Your task to perform on an android device: toggle pop-ups in chrome Image 0: 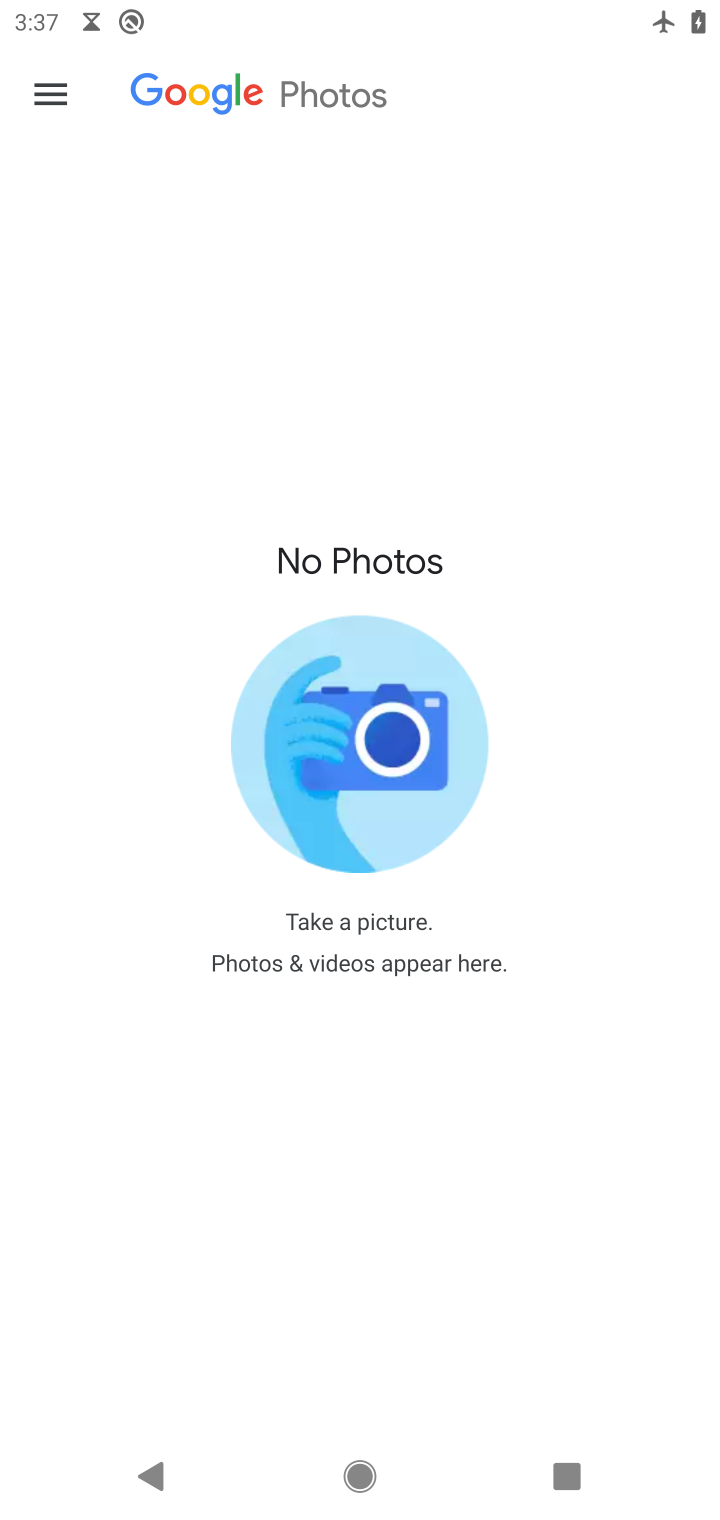
Step 0: press home button
Your task to perform on an android device: toggle pop-ups in chrome Image 1: 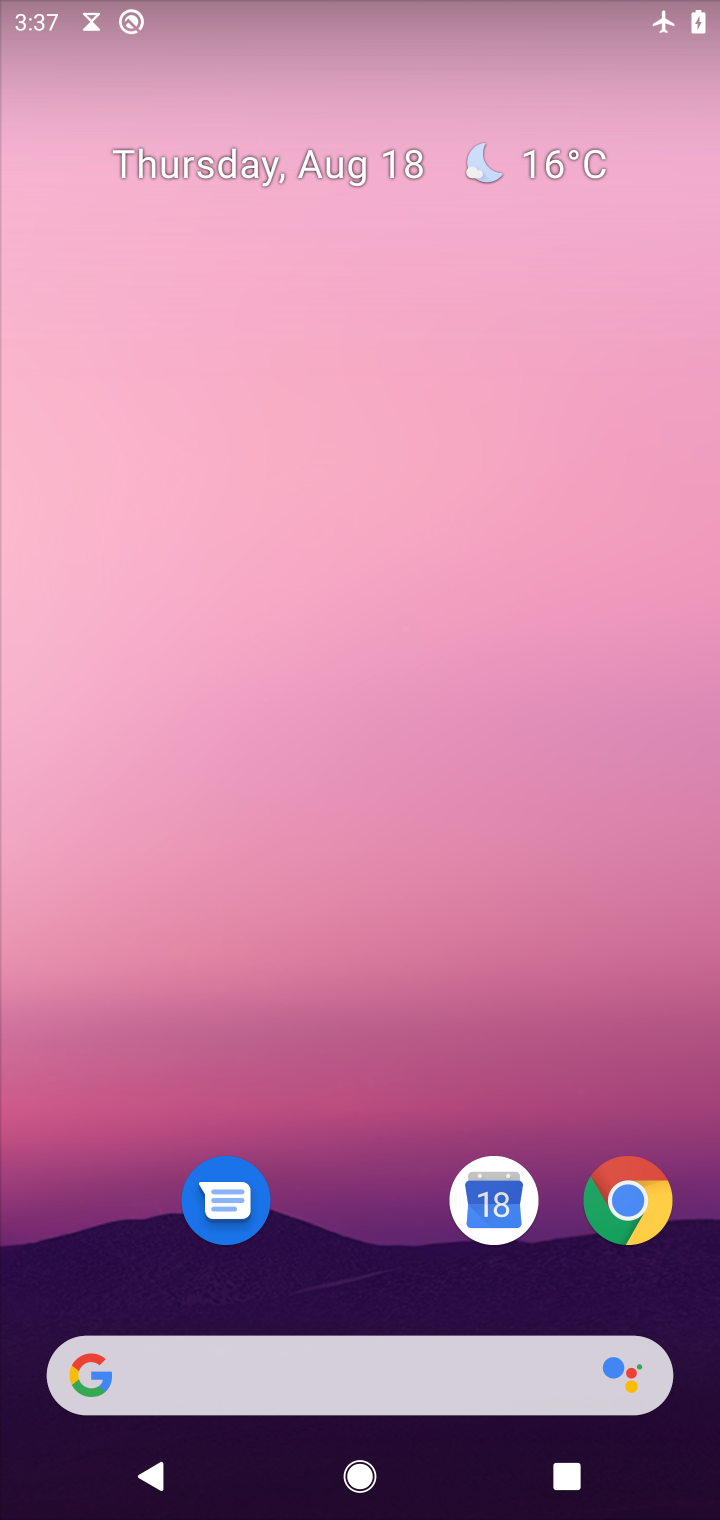
Step 1: drag from (358, 1073) to (420, 61)
Your task to perform on an android device: toggle pop-ups in chrome Image 2: 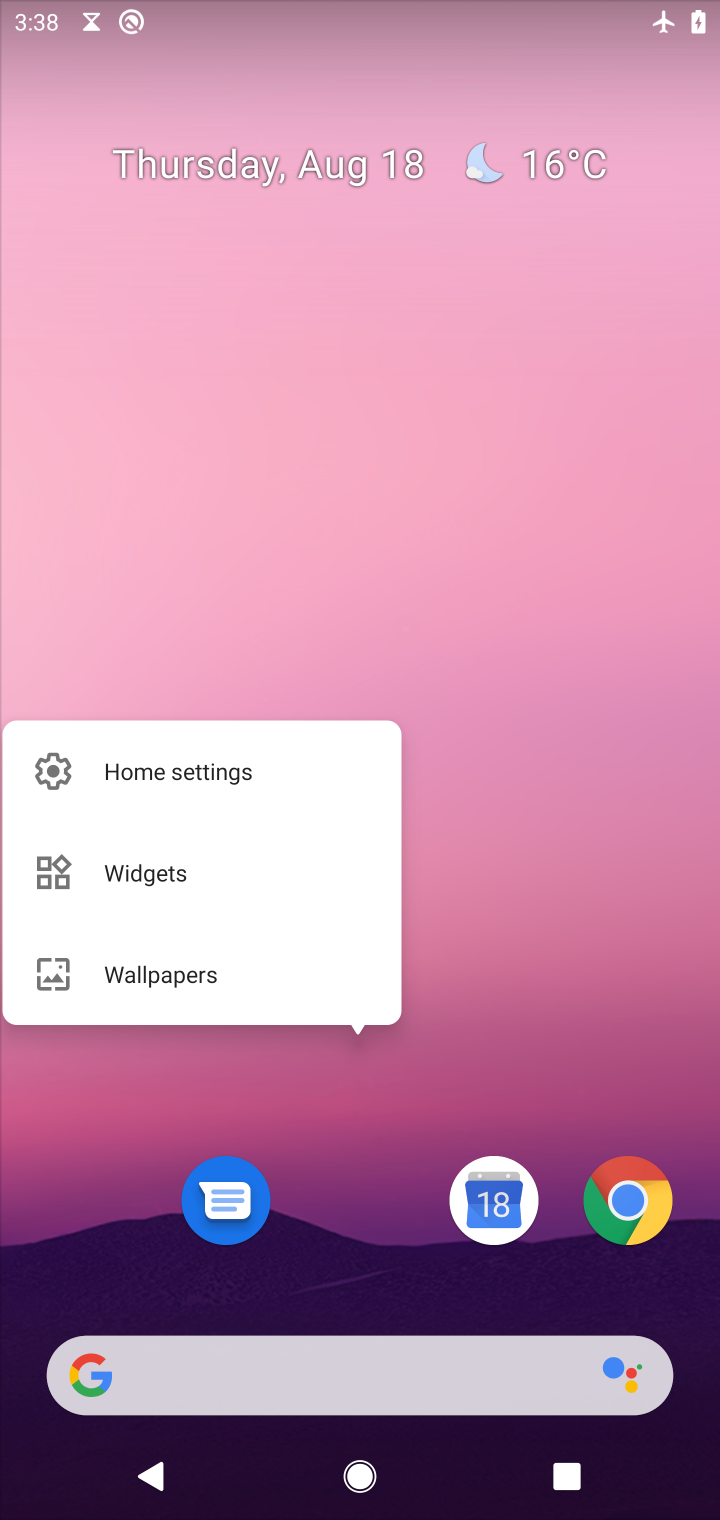
Step 2: click (375, 497)
Your task to perform on an android device: toggle pop-ups in chrome Image 3: 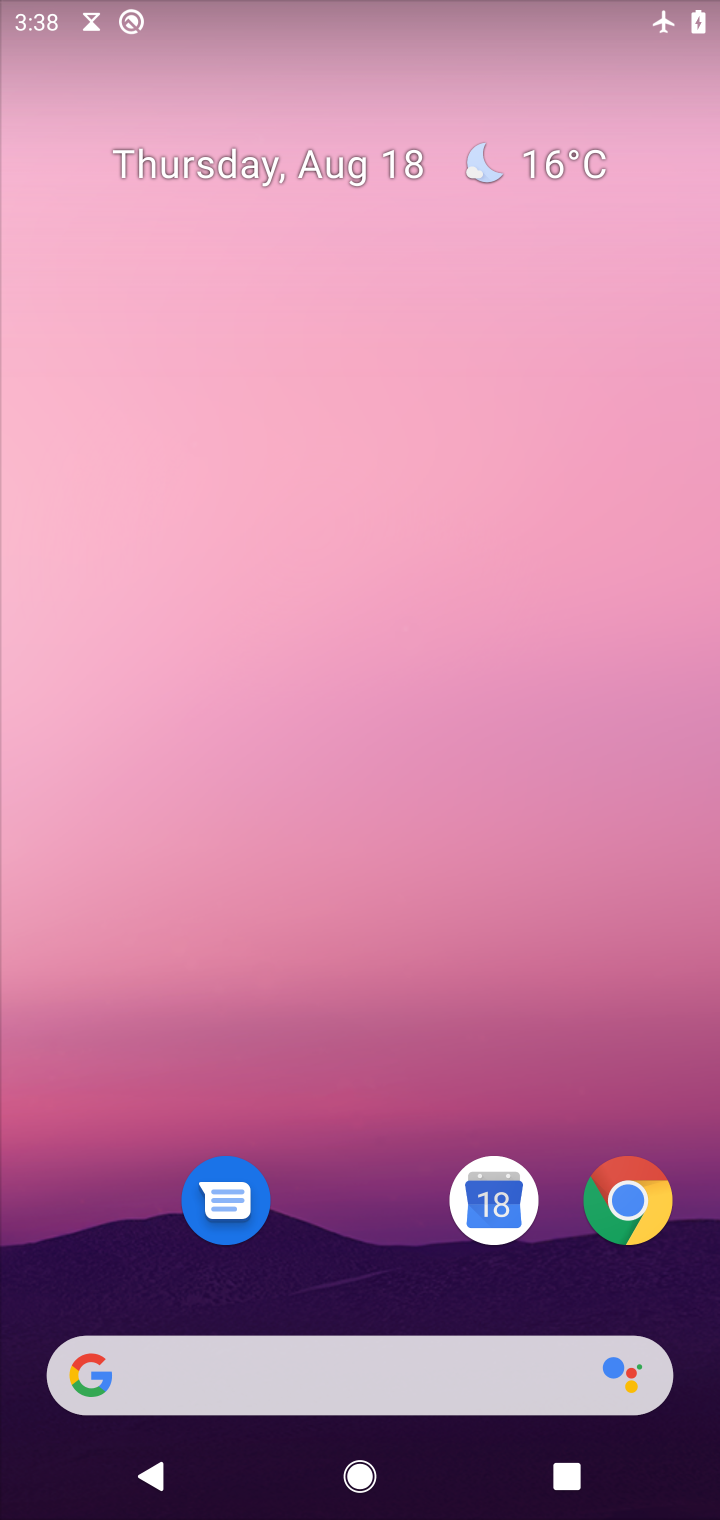
Step 3: drag from (355, 1202) to (281, 104)
Your task to perform on an android device: toggle pop-ups in chrome Image 4: 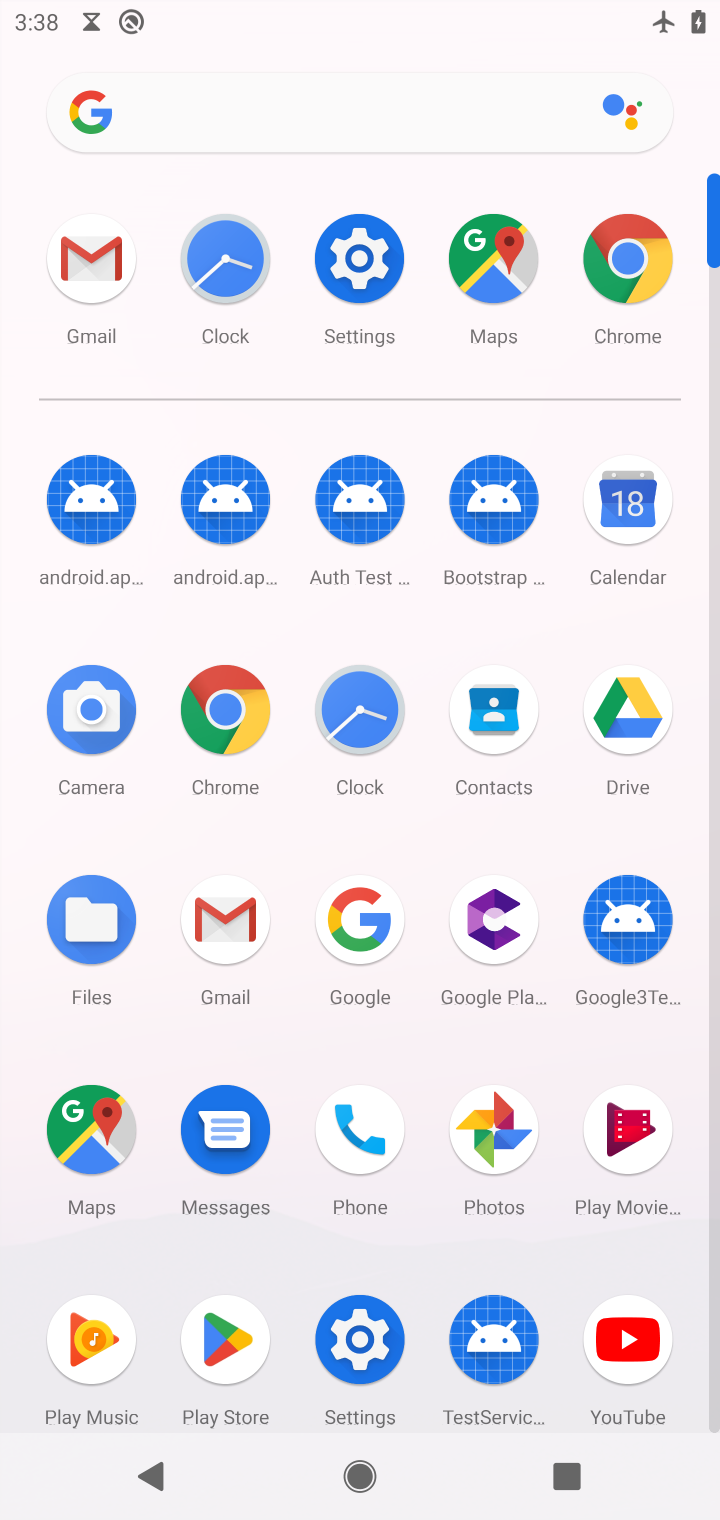
Step 4: click (211, 712)
Your task to perform on an android device: toggle pop-ups in chrome Image 5: 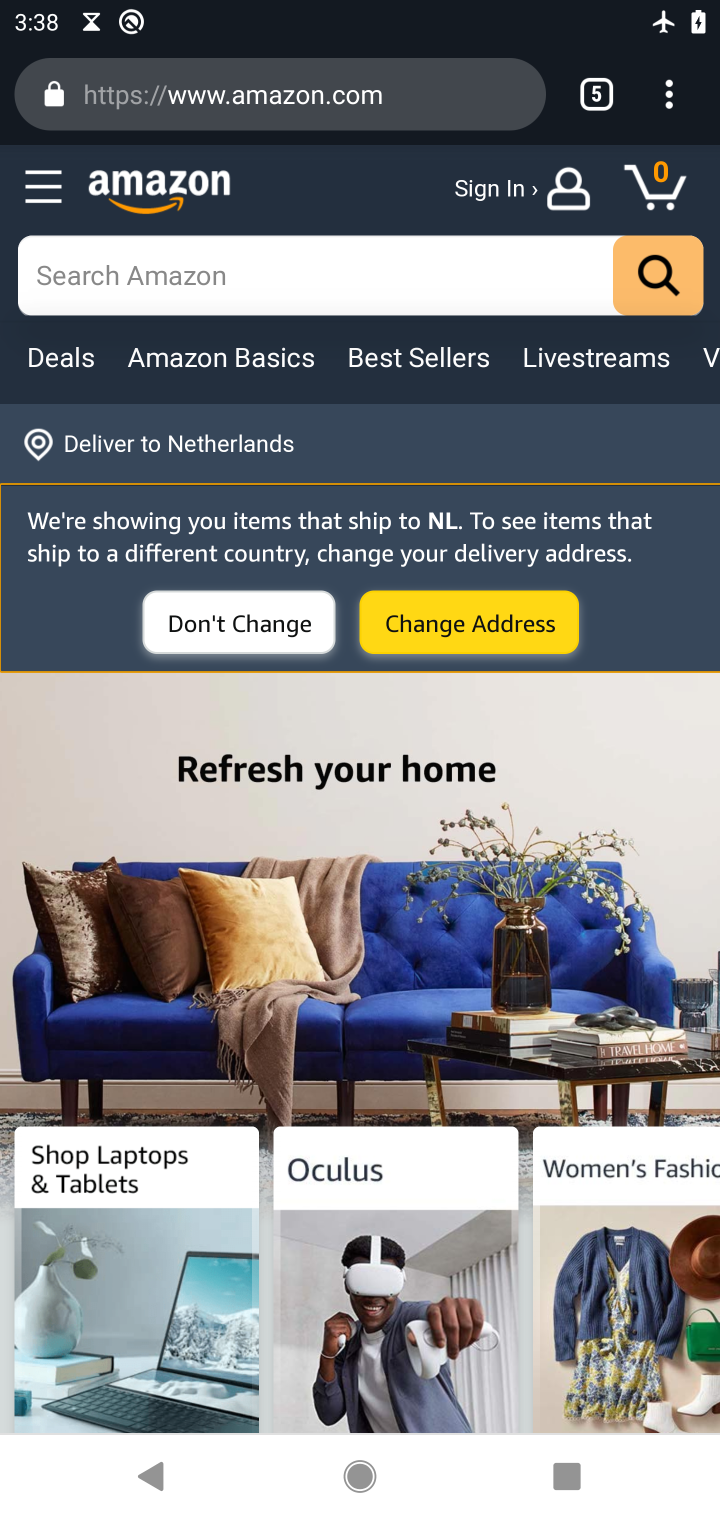
Step 5: drag from (649, 98) to (426, 1035)
Your task to perform on an android device: toggle pop-ups in chrome Image 6: 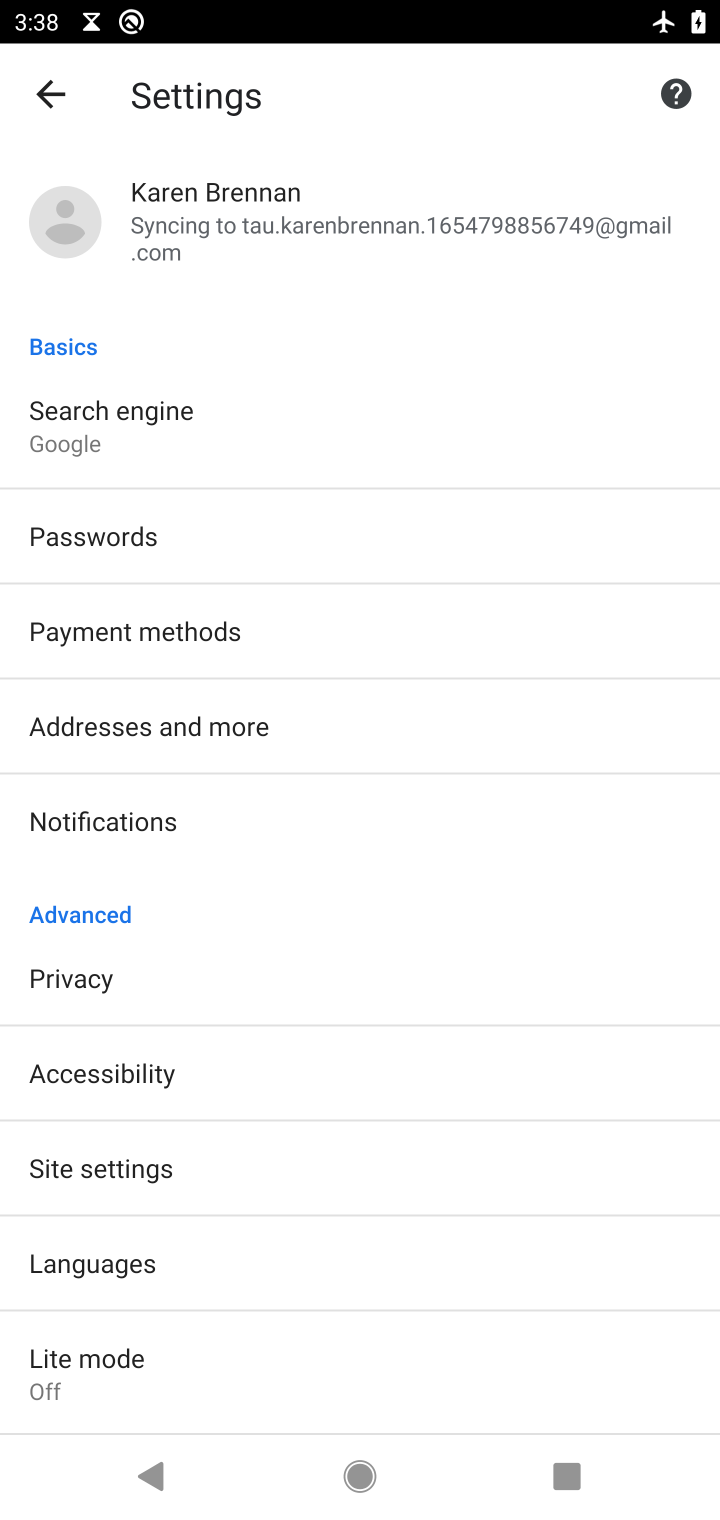
Step 6: drag from (174, 1299) to (124, 724)
Your task to perform on an android device: toggle pop-ups in chrome Image 7: 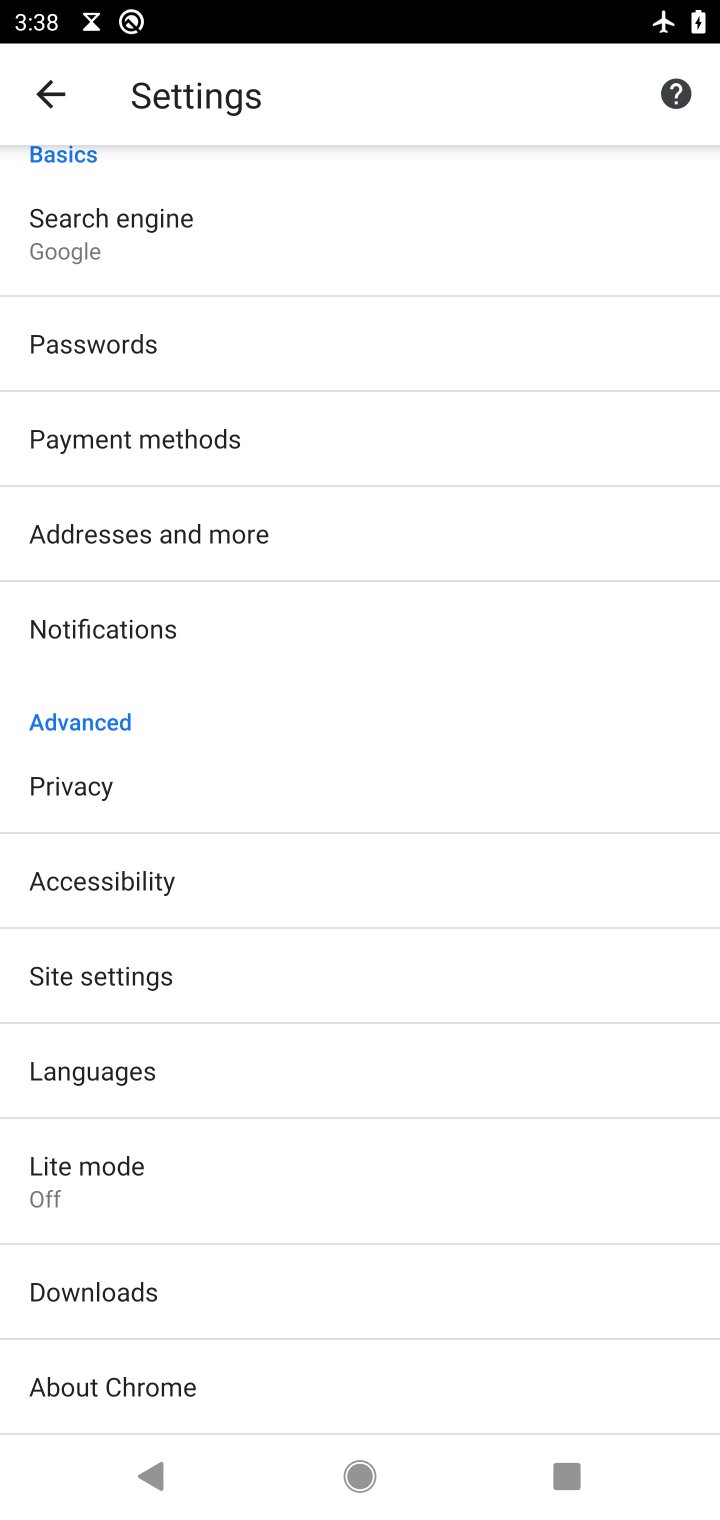
Step 7: click (123, 957)
Your task to perform on an android device: toggle pop-ups in chrome Image 8: 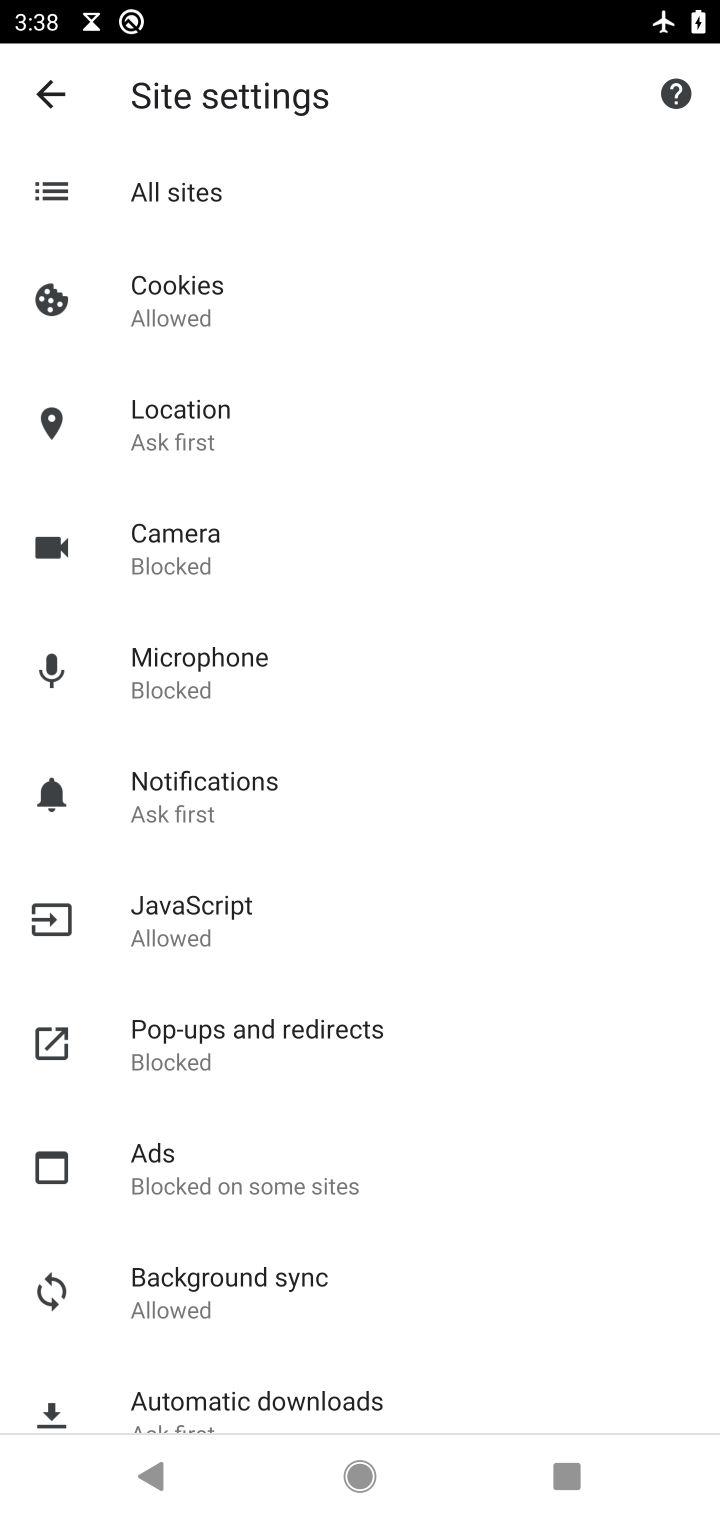
Step 8: click (221, 1011)
Your task to perform on an android device: toggle pop-ups in chrome Image 9: 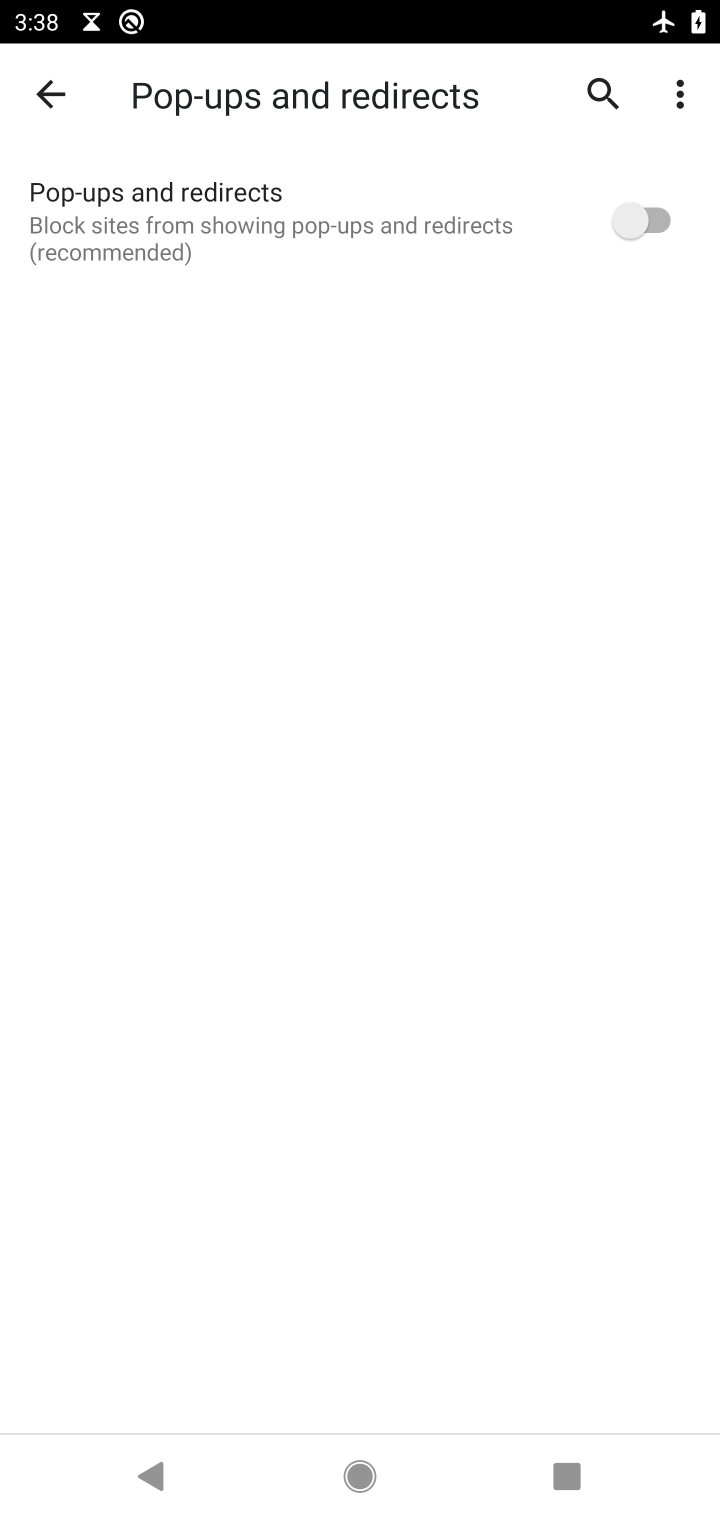
Step 9: click (391, 216)
Your task to perform on an android device: toggle pop-ups in chrome Image 10: 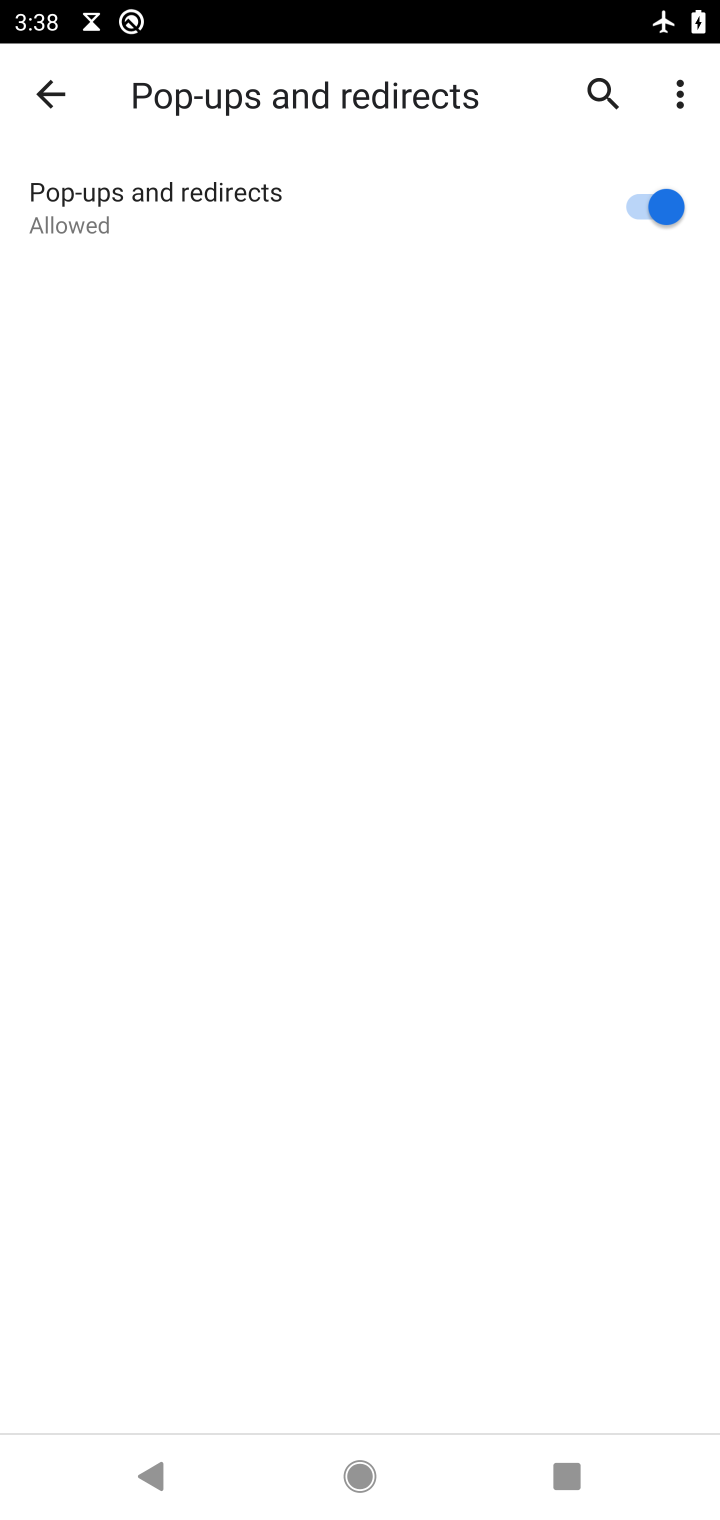
Step 10: task complete